Your task to perform on an android device: add a contact in the contacts app Image 0: 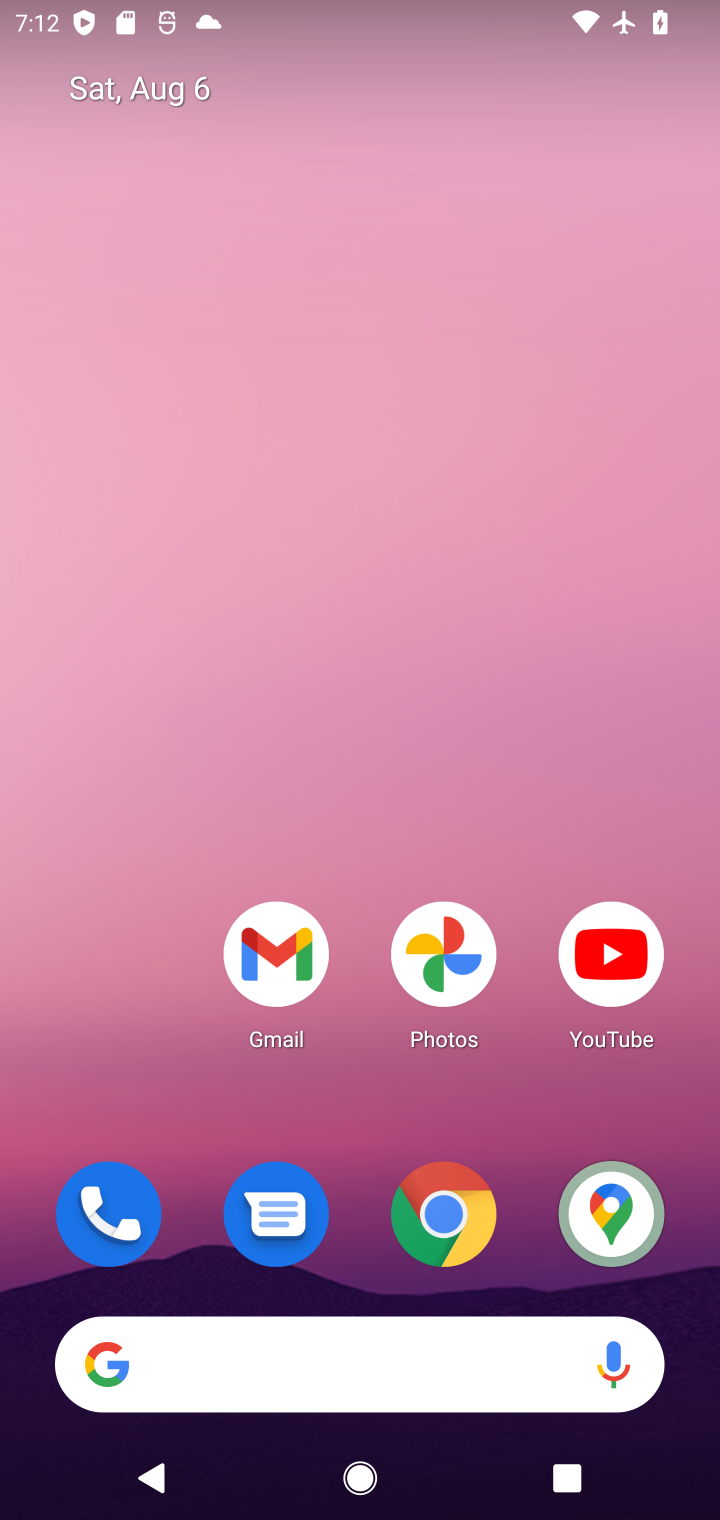
Step 0: drag from (369, 1228) to (385, 364)
Your task to perform on an android device: add a contact in the contacts app Image 1: 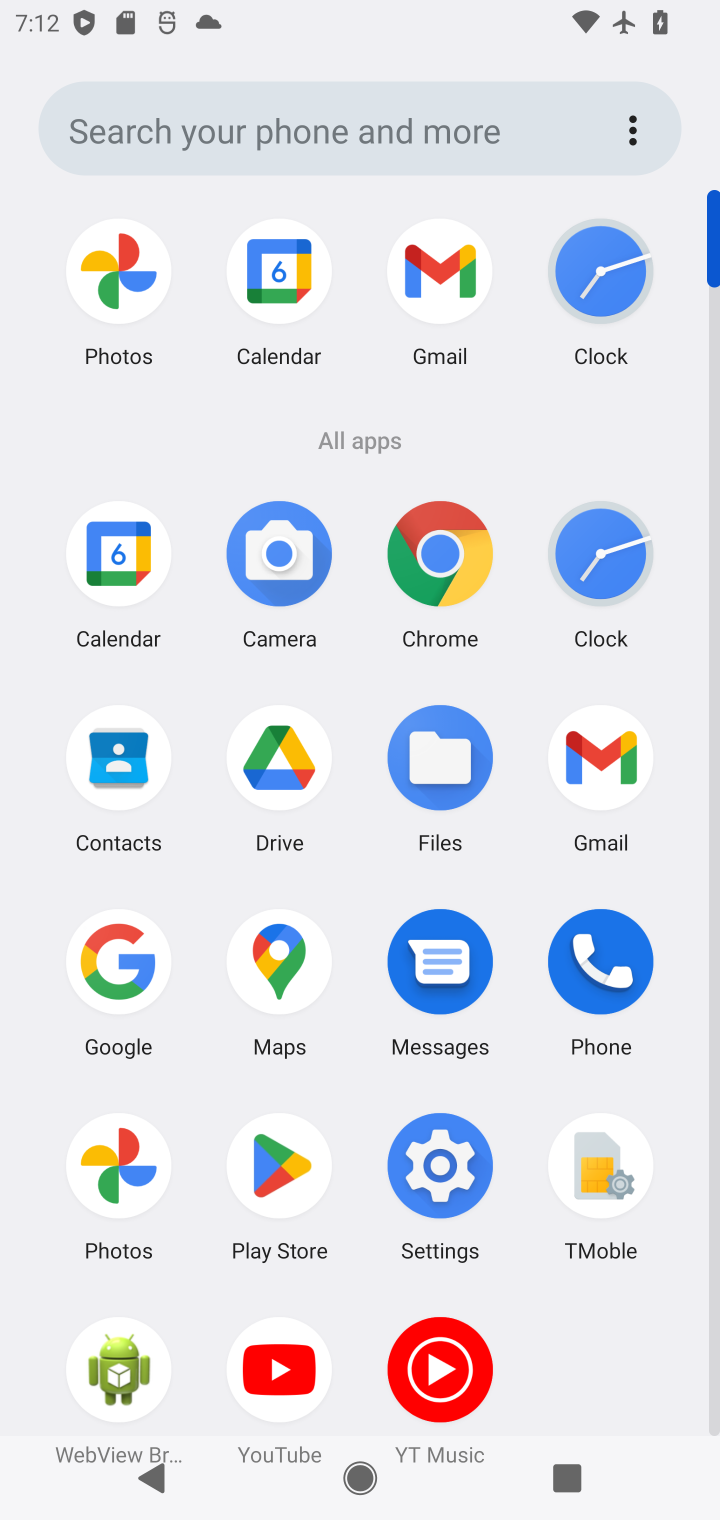
Step 1: click (145, 772)
Your task to perform on an android device: add a contact in the contacts app Image 2: 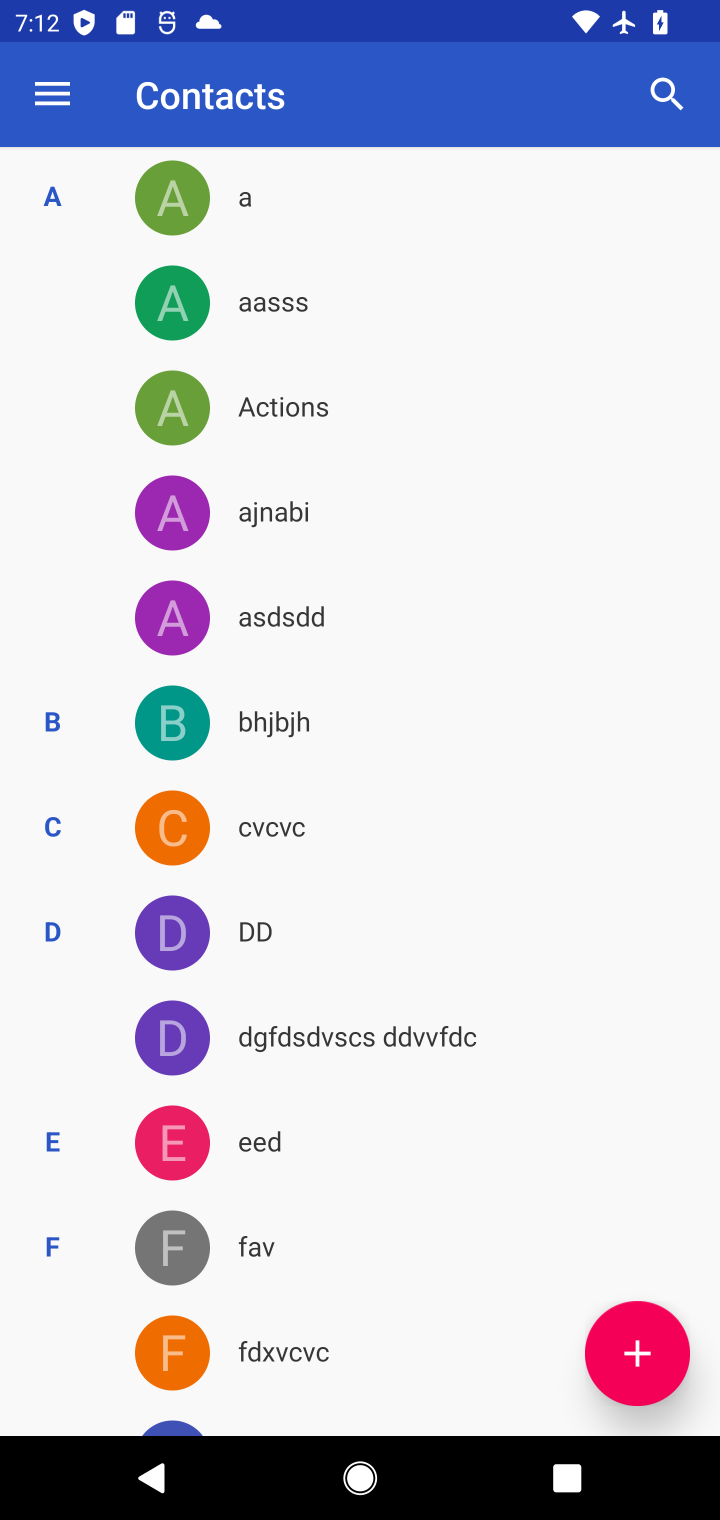
Step 2: click (647, 1366)
Your task to perform on an android device: add a contact in the contacts app Image 3: 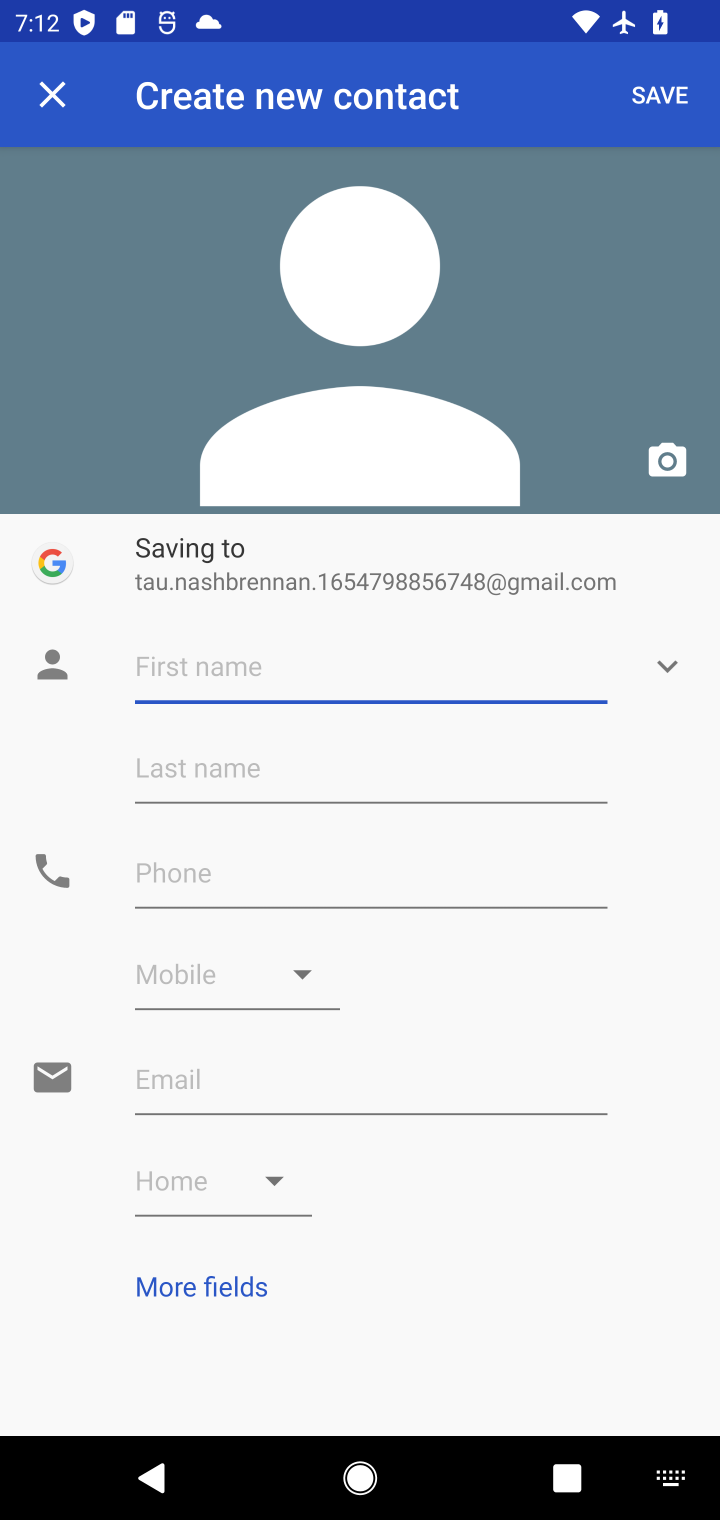
Step 3: type "plunti"
Your task to perform on an android device: add a contact in the contacts app Image 4: 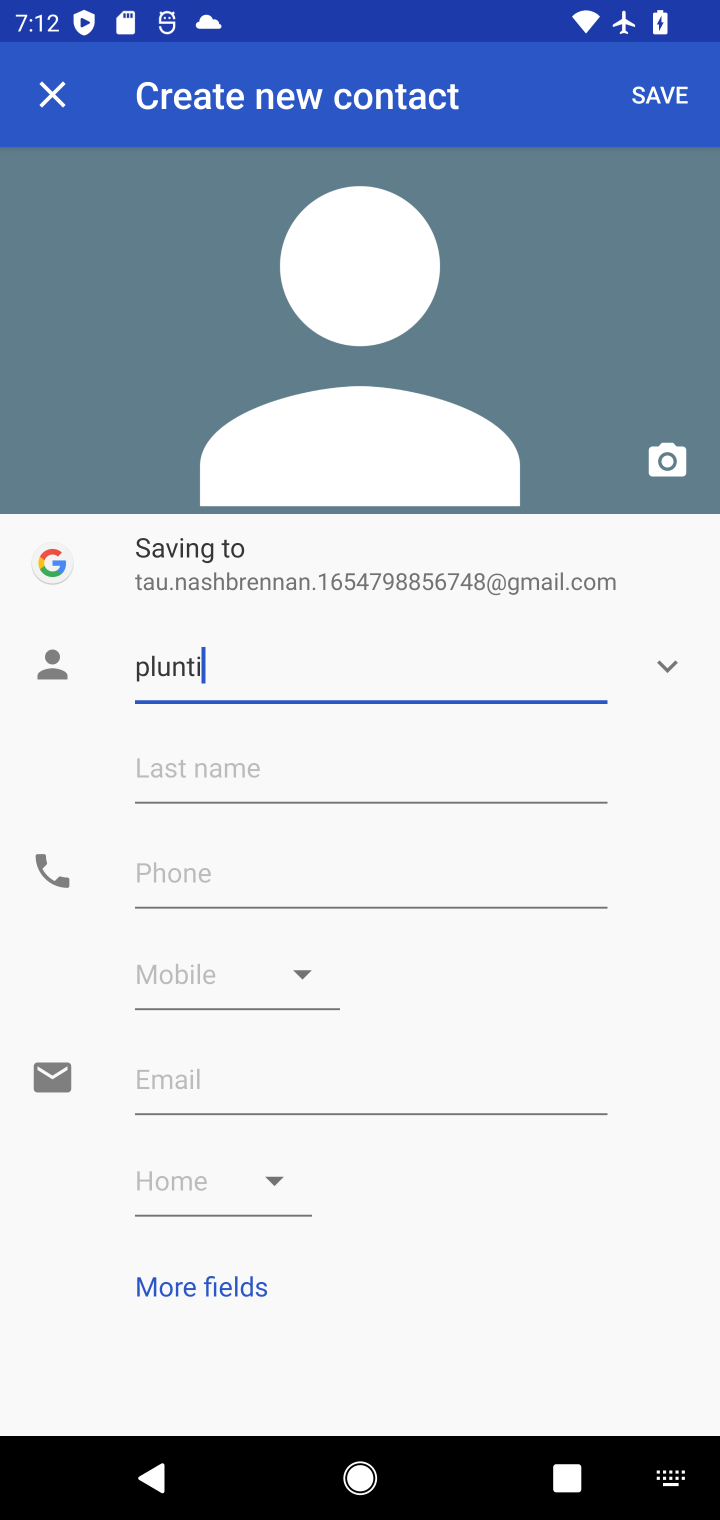
Step 4: click (654, 91)
Your task to perform on an android device: add a contact in the contacts app Image 5: 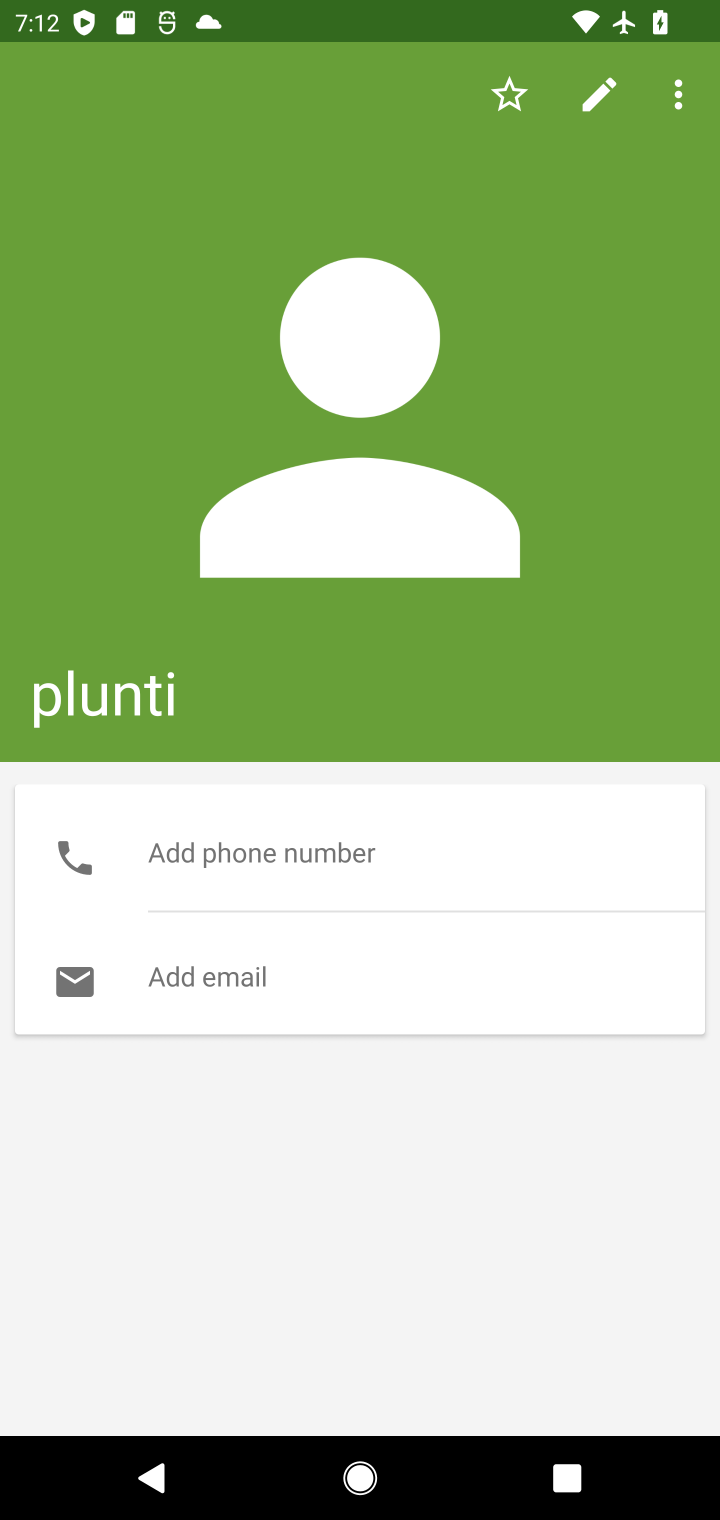
Step 5: task complete